Your task to perform on an android device: turn off notifications settings in the gmail app Image 0: 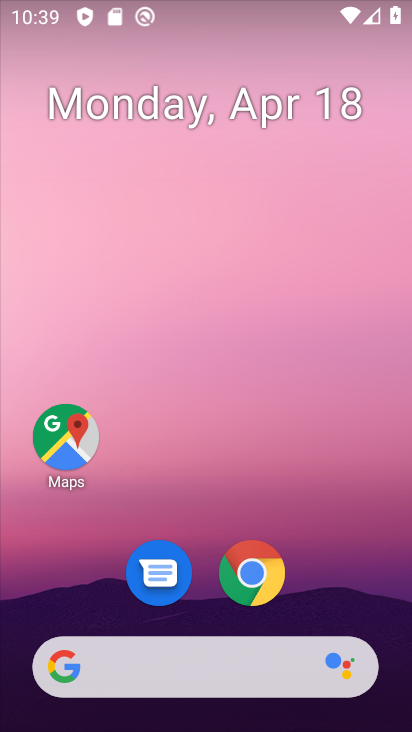
Step 0: drag from (347, 560) to (359, 62)
Your task to perform on an android device: turn off notifications settings in the gmail app Image 1: 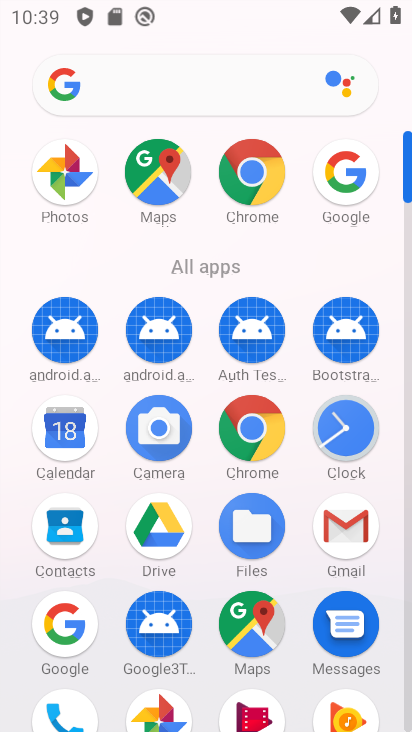
Step 1: click (345, 524)
Your task to perform on an android device: turn off notifications settings in the gmail app Image 2: 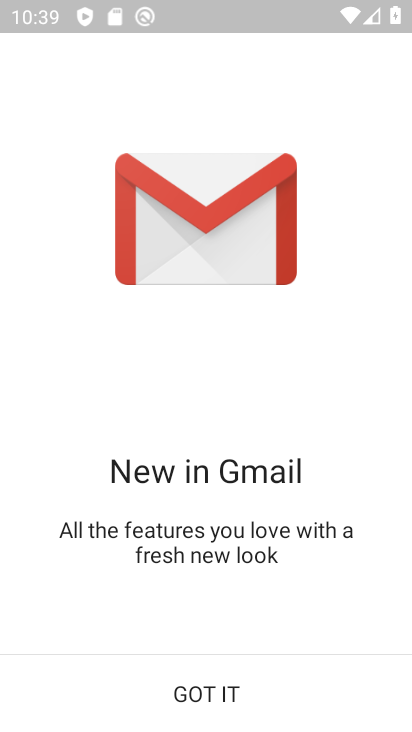
Step 2: click (196, 693)
Your task to perform on an android device: turn off notifications settings in the gmail app Image 3: 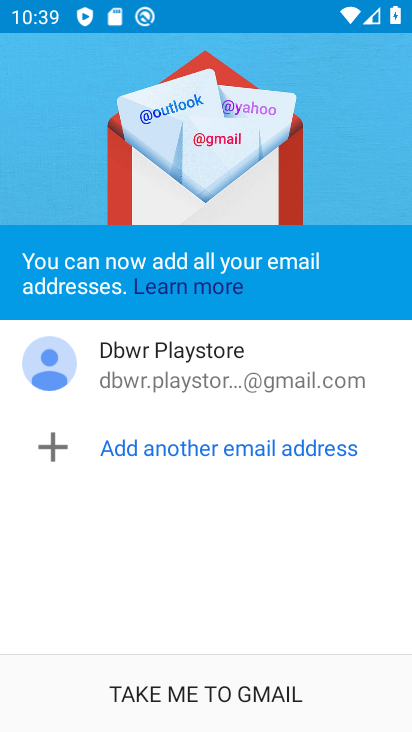
Step 3: click (196, 693)
Your task to perform on an android device: turn off notifications settings in the gmail app Image 4: 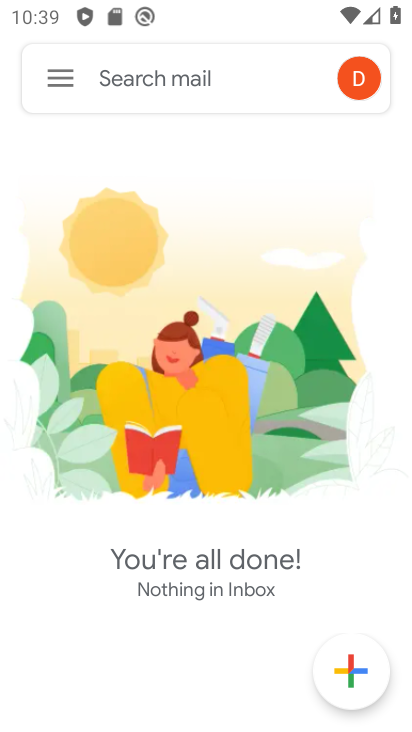
Step 4: click (53, 78)
Your task to perform on an android device: turn off notifications settings in the gmail app Image 5: 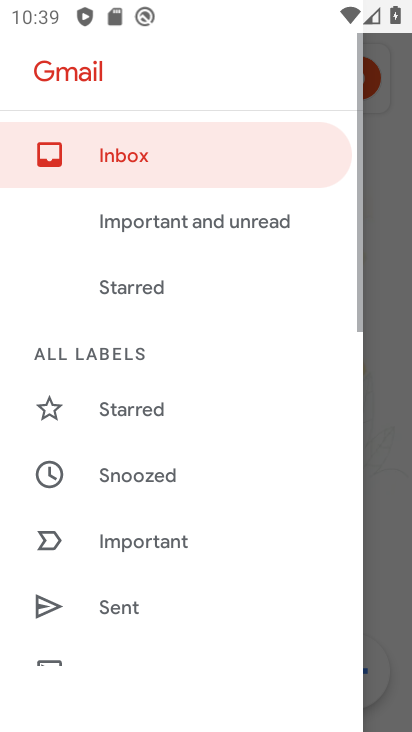
Step 5: drag from (176, 612) to (149, 62)
Your task to perform on an android device: turn off notifications settings in the gmail app Image 6: 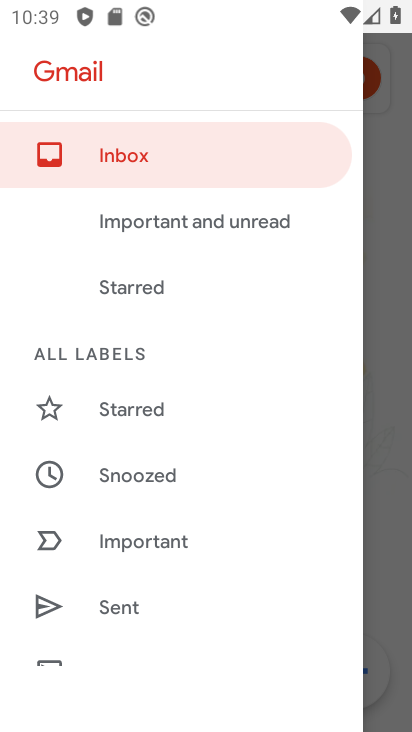
Step 6: drag from (141, 643) to (153, 101)
Your task to perform on an android device: turn off notifications settings in the gmail app Image 7: 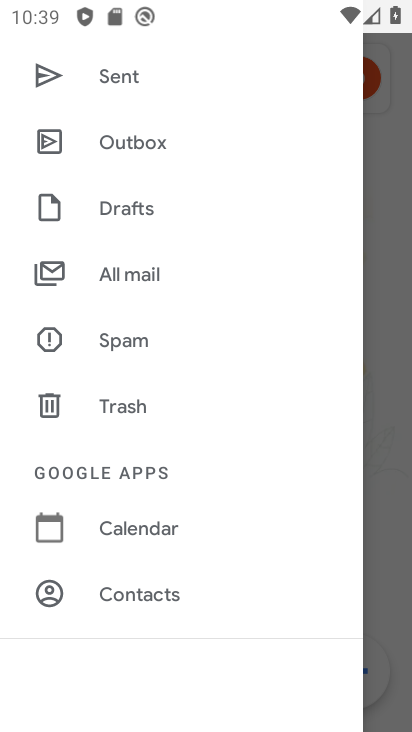
Step 7: drag from (123, 598) to (117, 199)
Your task to perform on an android device: turn off notifications settings in the gmail app Image 8: 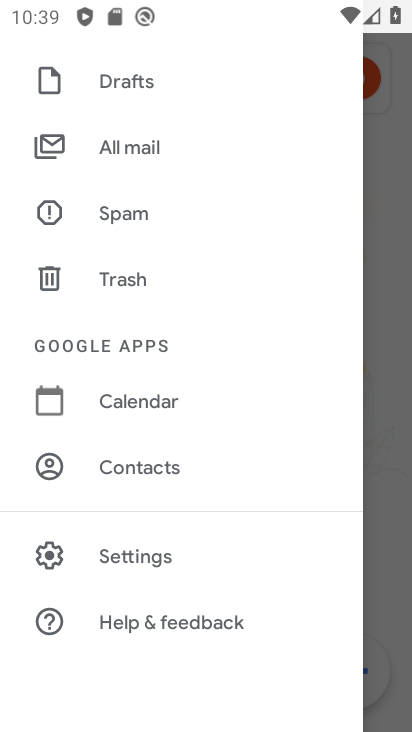
Step 8: click (56, 553)
Your task to perform on an android device: turn off notifications settings in the gmail app Image 9: 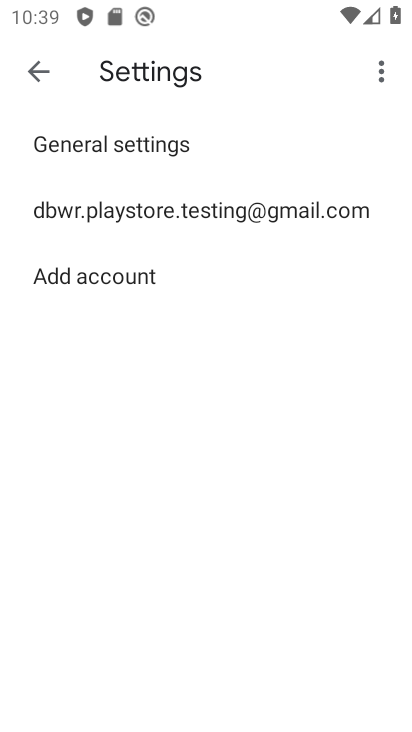
Step 9: click (124, 209)
Your task to perform on an android device: turn off notifications settings in the gmail app Image 10: 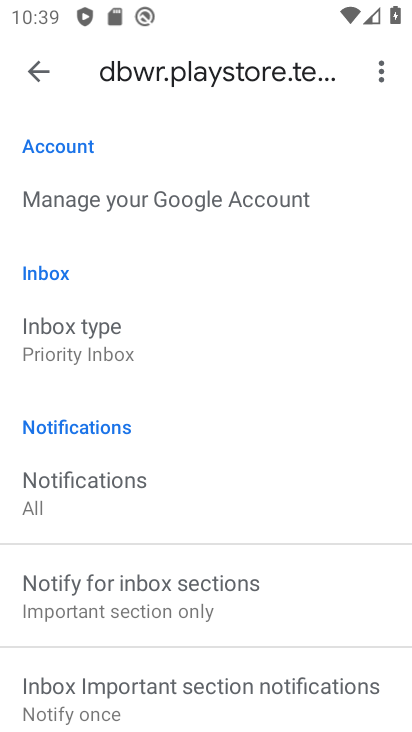
Step 10: drag from (175, 625) to (197, 381)
Your task to perform on an android device: turn off notifications settings in the gmail app Image 11: 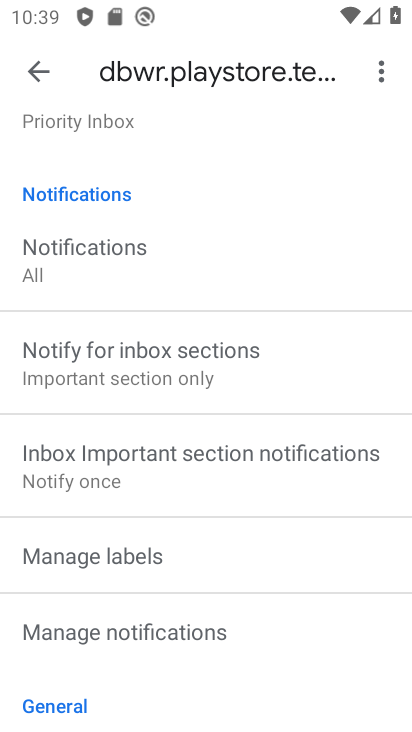
Step 11: click (153, 631)
Your task to perform on an android device: turn off notifications settings in the gmail app Image 12: 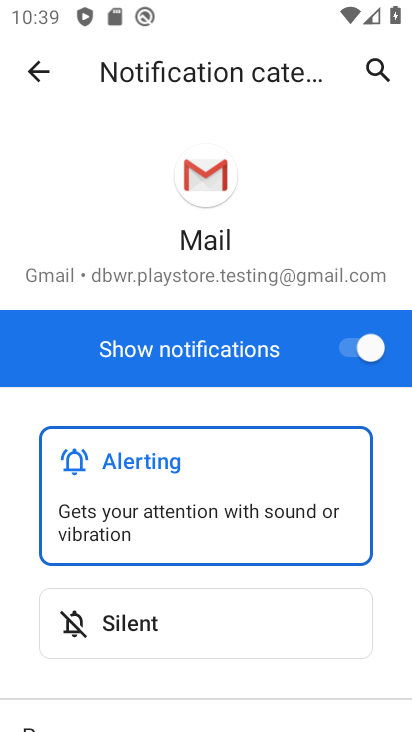
Step 12: click (373, 341)
Your task to perform on an android device: turn off notifications settings in the gmail app Image 13: 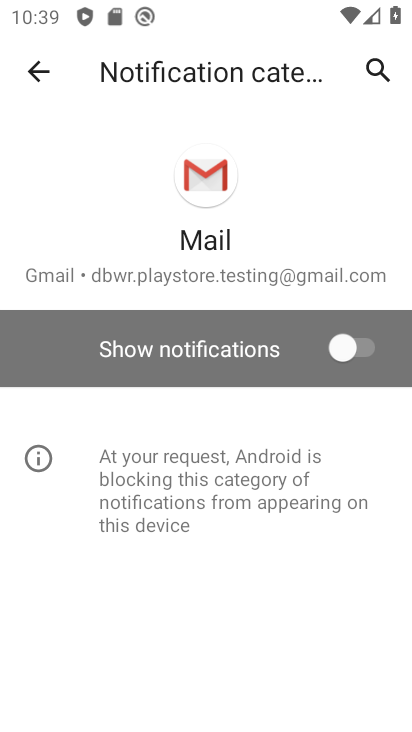
Step 13: task complete